Your task to perform on an android device: Open location settings Image 0: 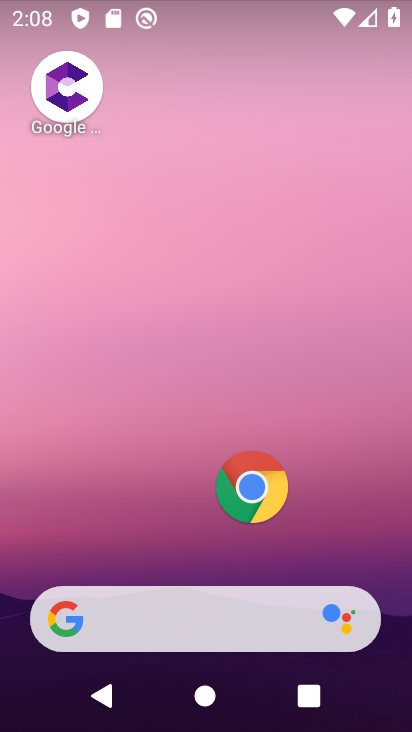
Step 0: drag from (133, 562) to (292, 69)
Your task to perform on an android device: Open location settings Image 1: 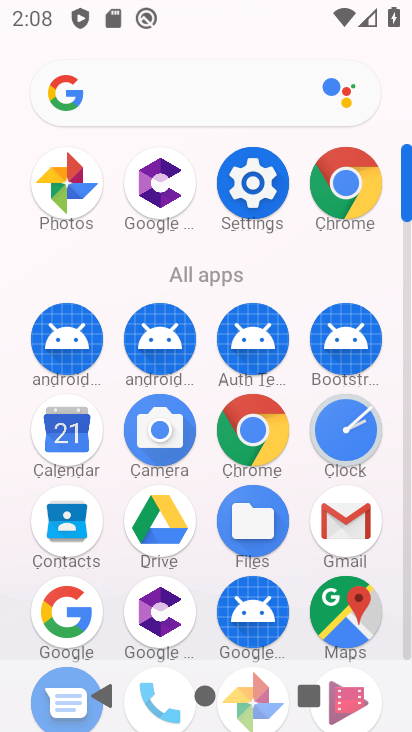
Step 1: drag from (180, 612) to (246, 413)
Your task to perform on an android device: Open location settings Image 2: 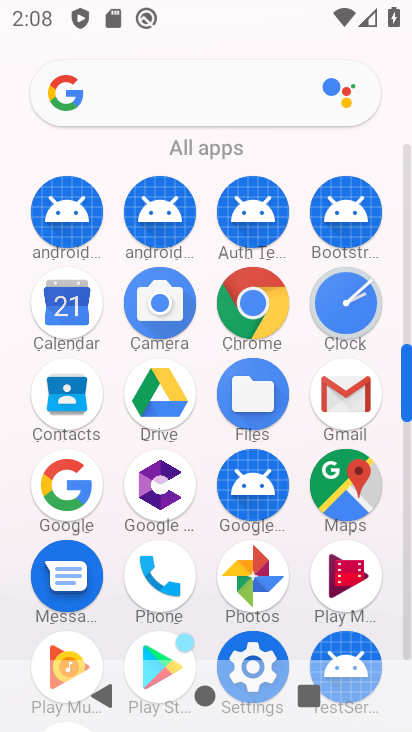
Step 2: click (260, 643)
Your task to perform on an android device: Open location settings Image 3: 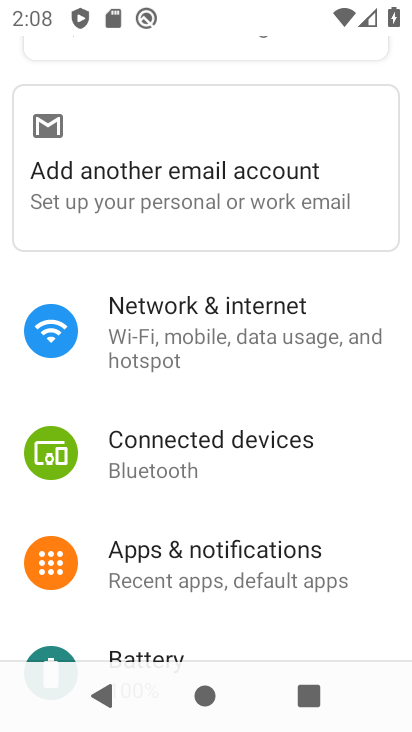
Step 3: drag from (110, 607) to (232, 298)
Your task to perform on an android device: Open location settings Image 4: 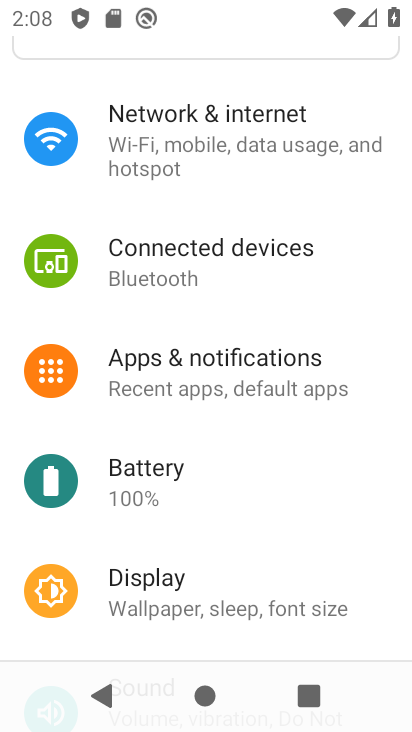
Step 4: drag from (200, 540) to (292, 214)
Your task to perform on an android device: Open location settings Image 5: 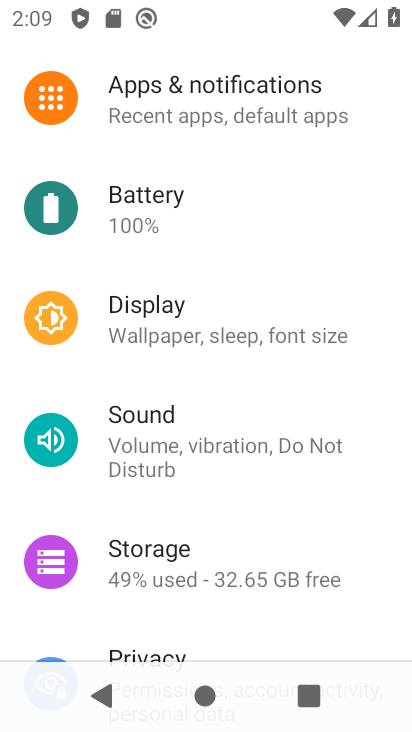
Step 5: drag from (103, 636) to (223, 328)
Your task to perform on an android device: Open location settings Image 6: 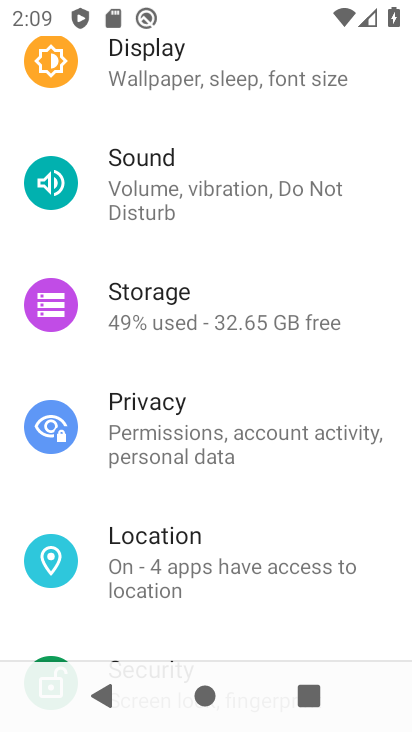
Step 6: click (154, 585)
Your task to perform on an android device: Open location settings Image 7: 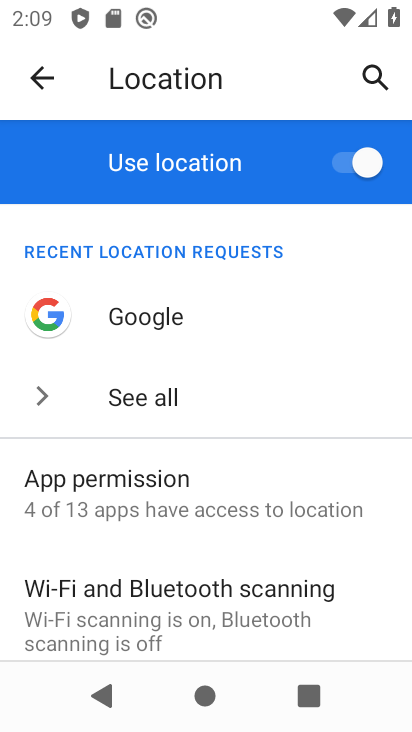
Step 7: task complete